Your task to perform on an android device: Open privacy settings Image 0: 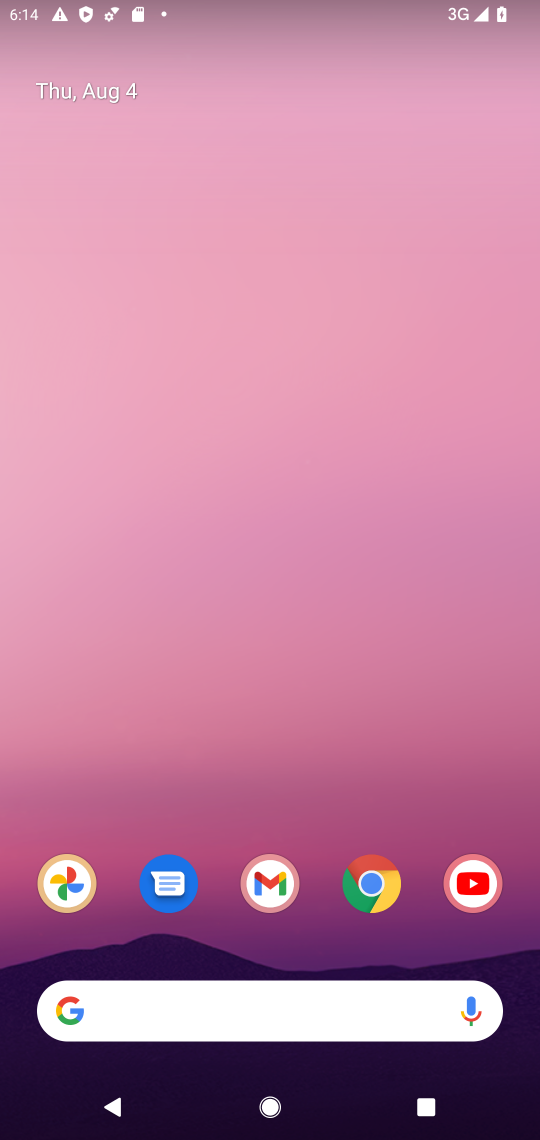
Step 0: drag from (413, 820) to (350, 0)
Your task to perform on an android device: Open privacy settings Image 1: 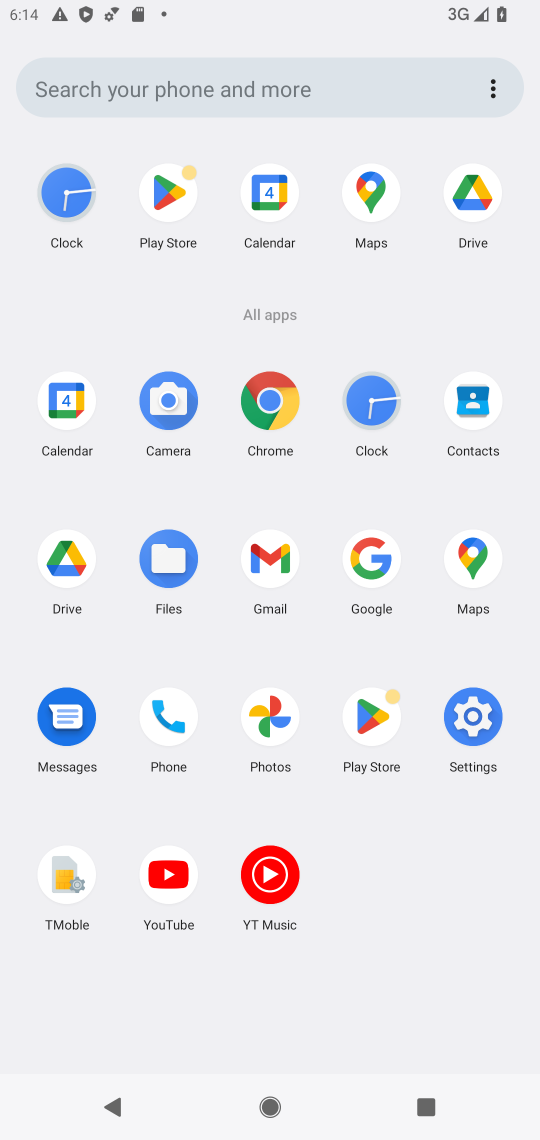
Step 1: click (488, 730)
Your task to perform on an android device: Open privacy settings Image 2: 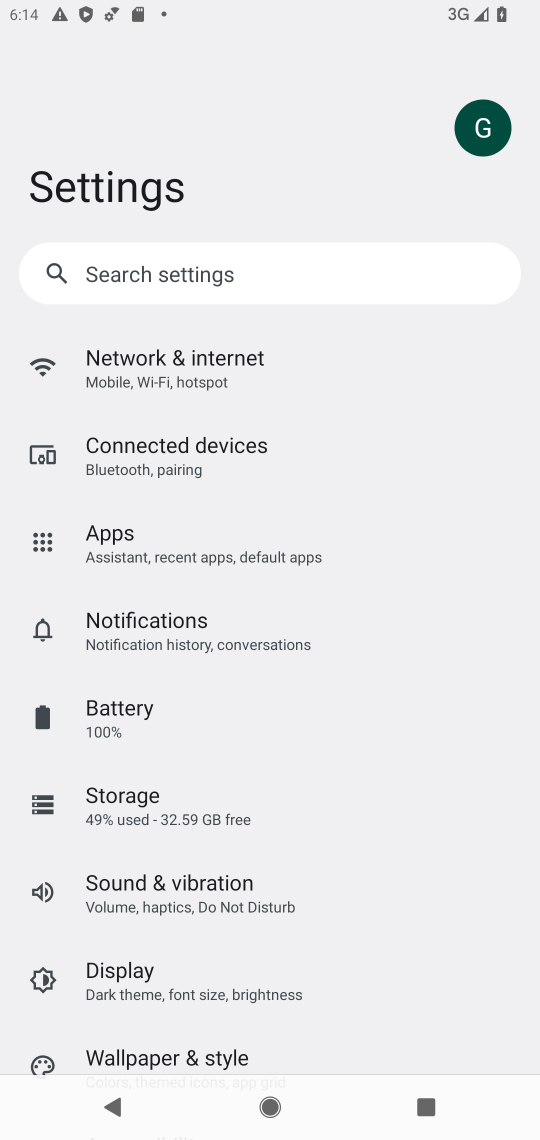
Step 2: drag from (286, 1000) to (336, 356)
Your task to perform on an android device: Open privacy settings Image 3: 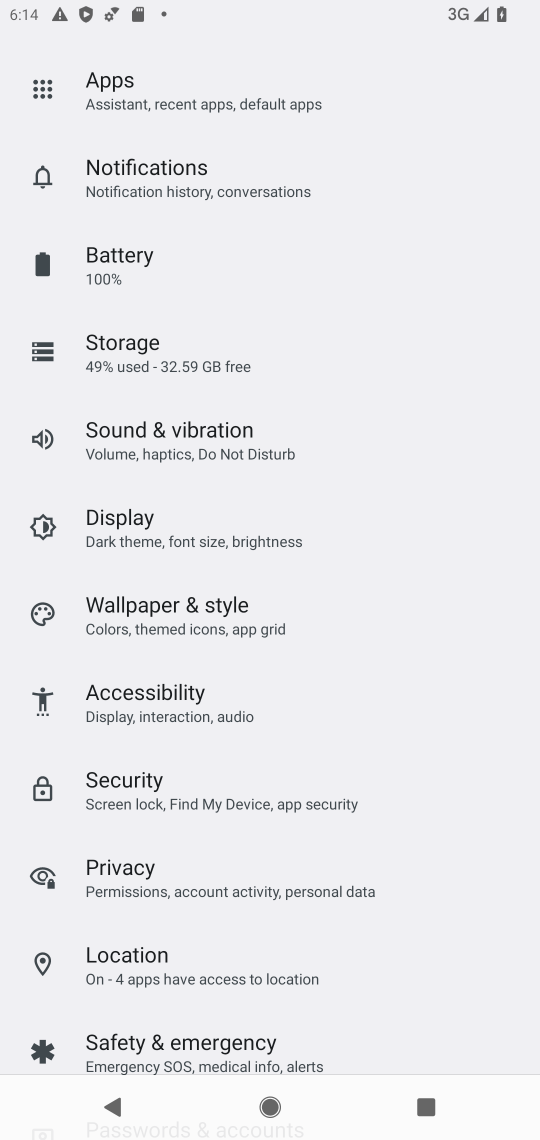
Step 3: drag from (195, 1014) to (187, 522)
Your task to perform on an android device: Open privacy settings Image 4: 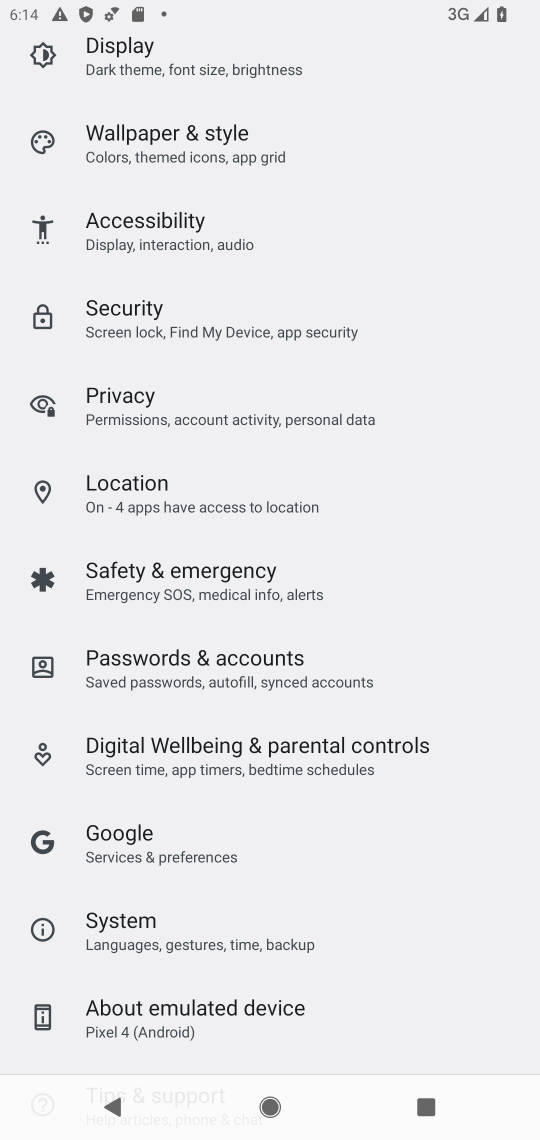
Step 4: click (230, 398)
Your task to perform on an android device: Open privacy settings Image 5: 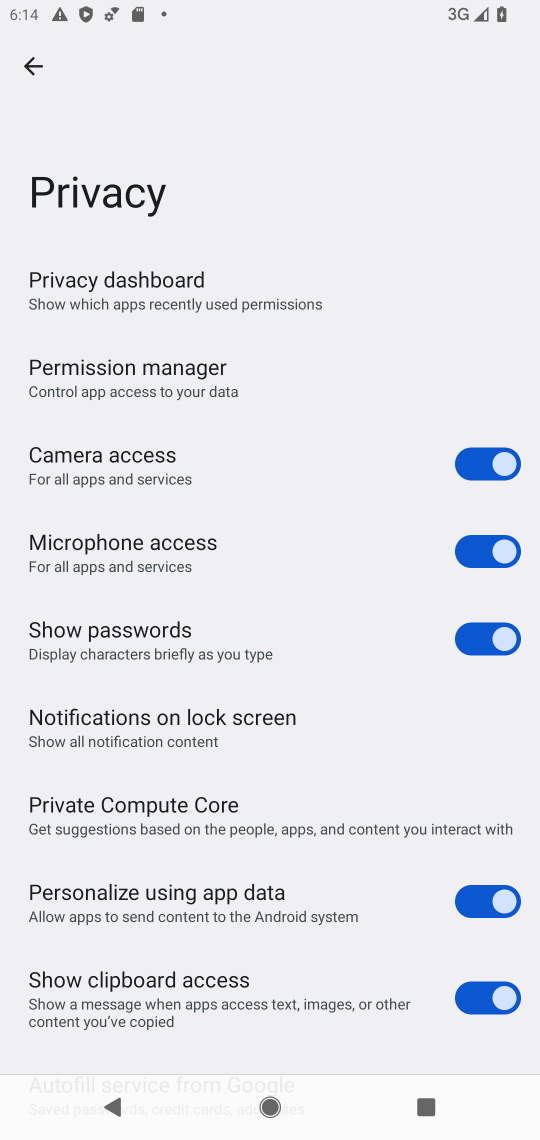
Step 5: task complete